Your task to perform on an android device: turn on showing notifications on the lock screen Image 0: 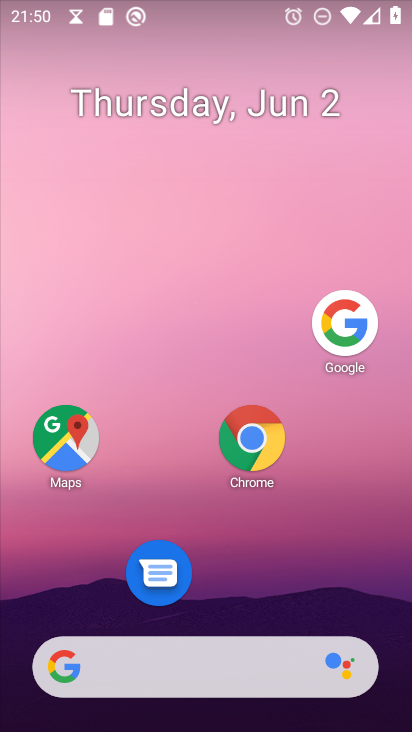
Step 0: press home button
Your task to perform on an android device: turn on showing notifications on the lock screen Image 1: 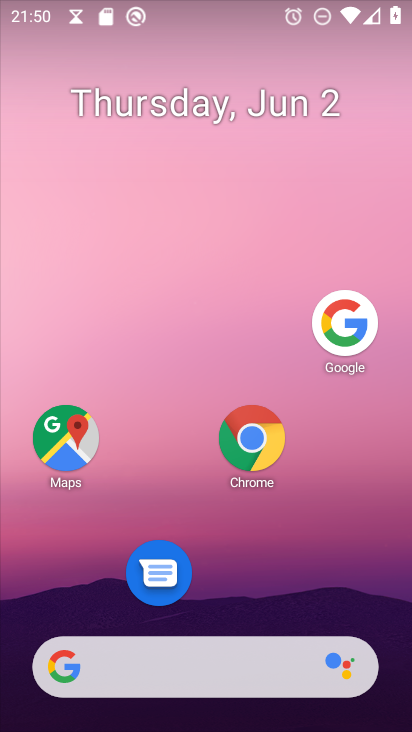
Step 1: drag from (255, 528) to (329, 241)
Your task to perform on an android device: turn on showing notifications on the lock screen Image 2: 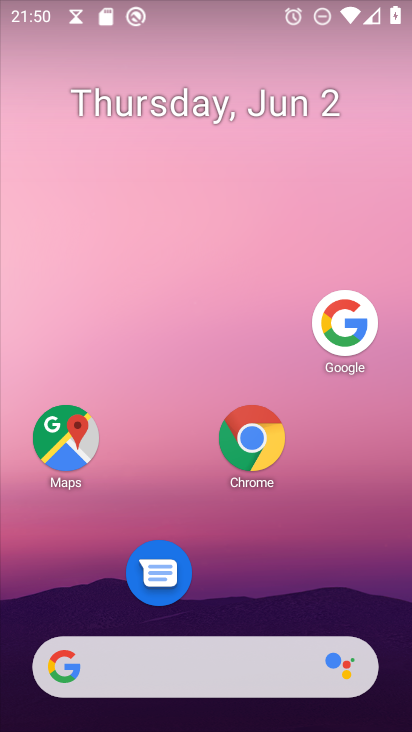
Step 2: drag from (158, 681) to (290, 159)
Your task to perform on an android device: turn on showing notifications on the lock screen Image 3: 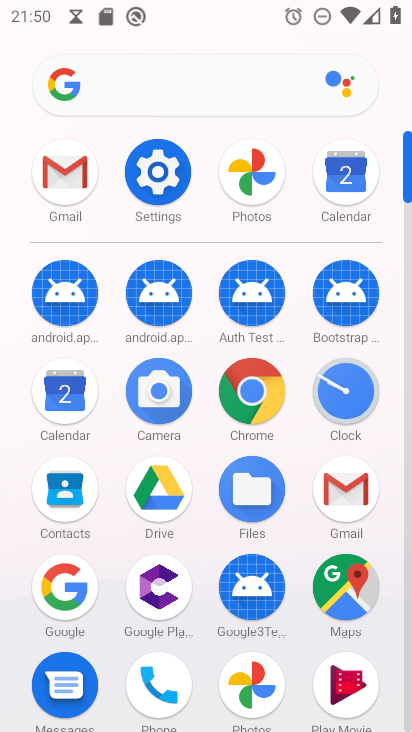
Step 3: click (160, 182)
Your task to perform on an android device: turn on showing notifications on the lock screen Image 4: 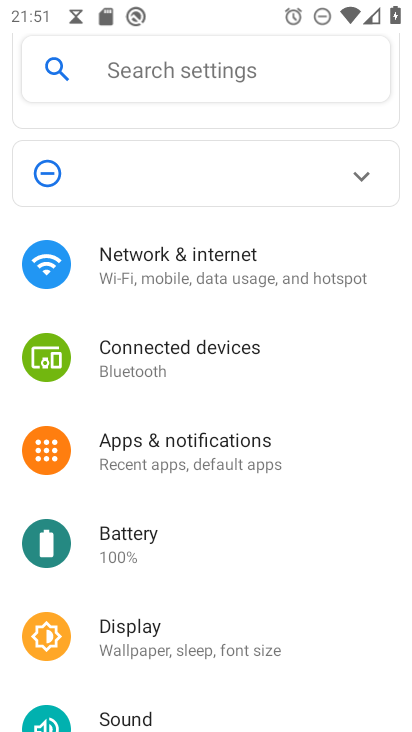
Step 4: click (207, 449)
Your task to perform on an android device: turn on showing notifications on the lock screen Image 5: 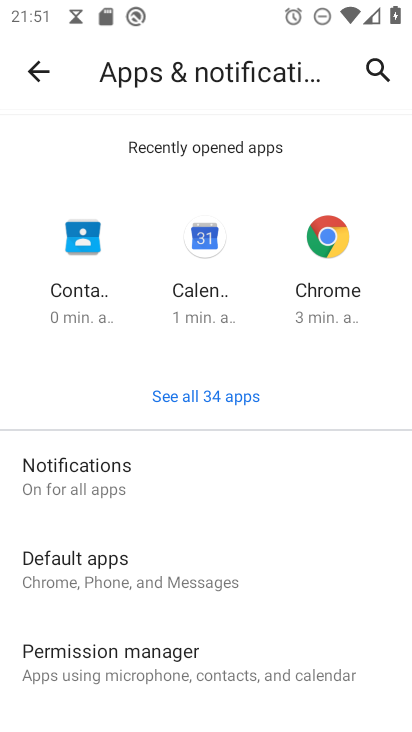
Step 5: click (84, 477)
Your task to perform on an android device: turn on showing notifications on the lock screen Image 6: 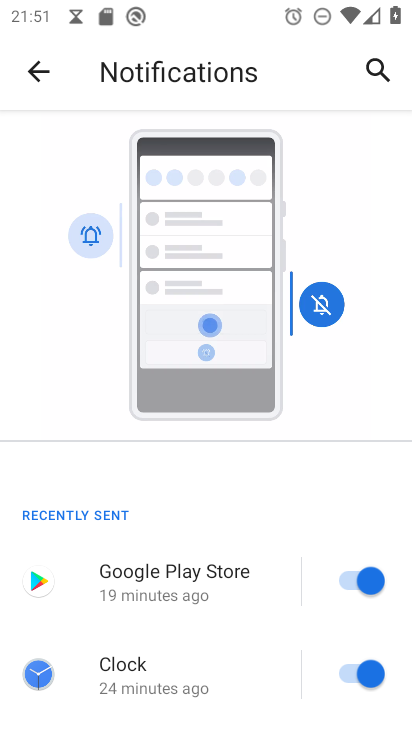
Step 6: drag from (223, 670) to (367, 169)
Your task to perform on an android device: turn on showing notifications on the lock screen Image 7: 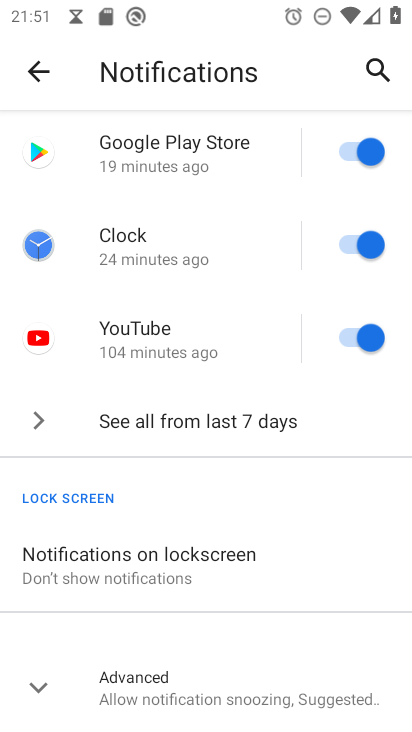
Step 7: click (201, 564)
Your task to perform on an android device: turn on showing notifications on the lock screen Image 8: 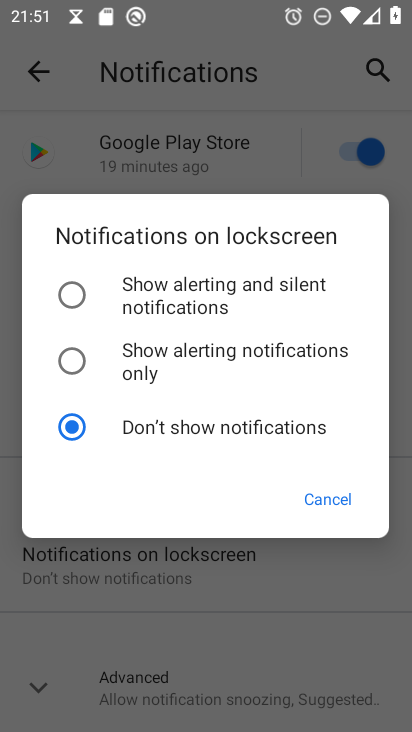
Step 8: click (70, 295)
Your task to perform on an android device: turn on showing notifications on the lock screen Image 9: 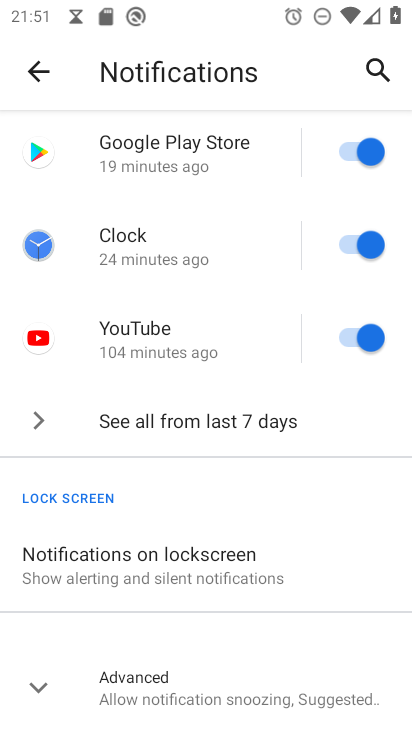
Step 9: task complete